Your task to perform on an android device: What's the price of the EGO 14-in 56-Volt Brushless Cordless Chainsaw? Image 0: 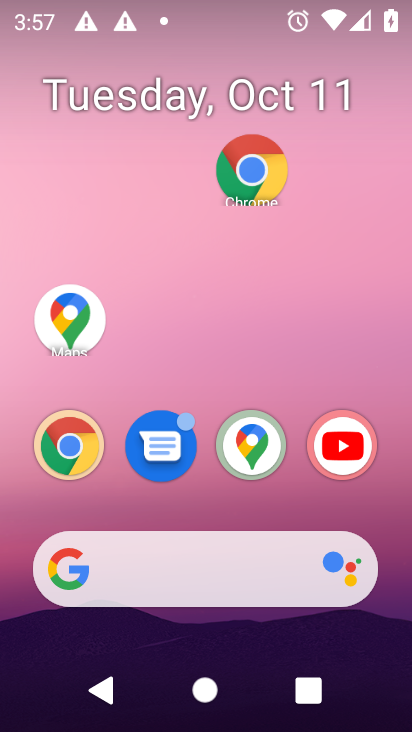
Step 0: click (256, 172)
Your task to perform on an android device: What's the price of the EGO 14-in 56-Volt Brushless Cordless Chainsaw? Image 1: 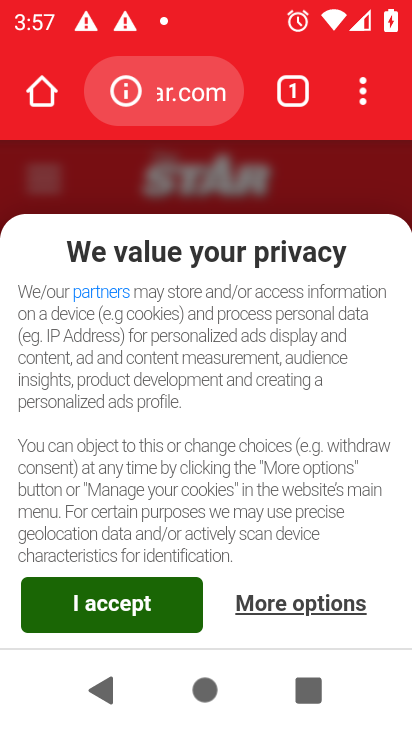
Step 1: click (192, 101)
Your task to perform on an android device: What's the price of the EGO 14-in 56-Volt Brushless Cordless Chainsaw? Image 2: 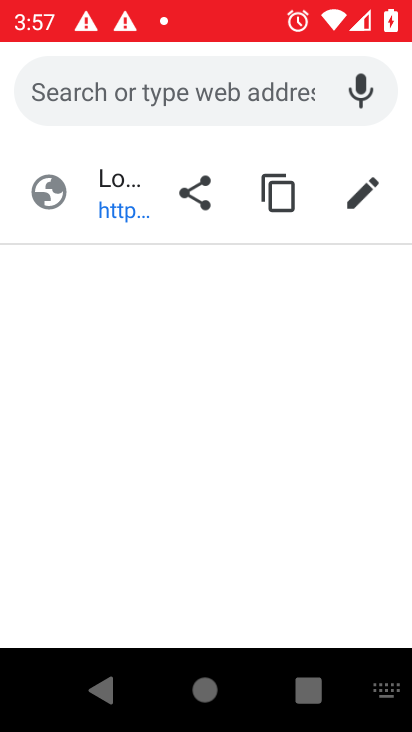
Step 2: type "rice of the EGO 14-in 56-Volt Brushless Cordless Chainsaw"
Your task to perform on an android device: What's the price of the EGO 14-in 56-Volt Brushless Cordless Chainsaw? Image 3: 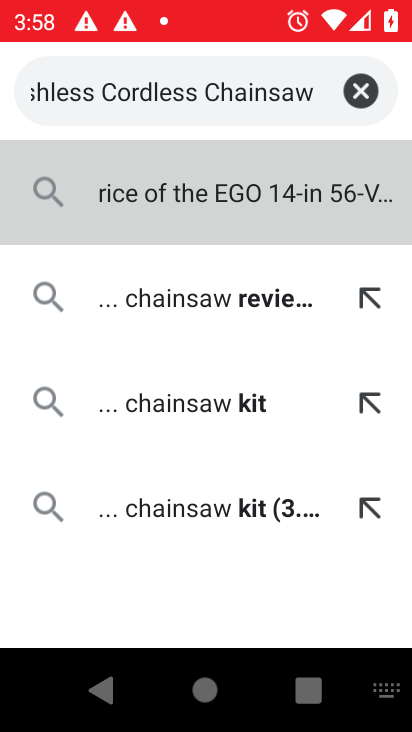
Step 3: click (159, 303)
Your task to perform on an android device: What's the price of the EGO 14-in 56-Volt Brushless Cordless Chainsaw? Image 4: 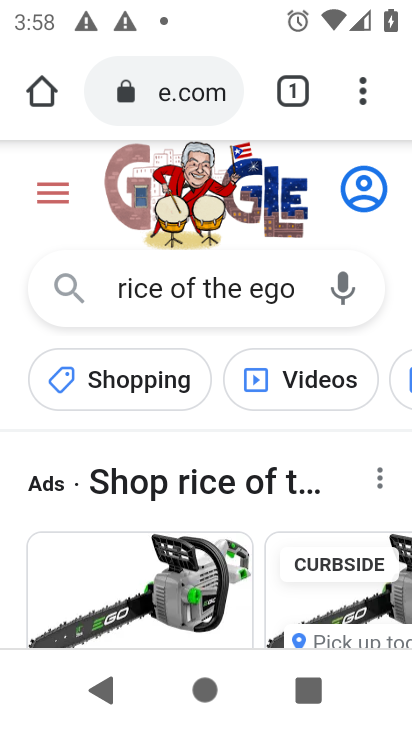
Step 4: task complete